Your task to perform on an android device: Open the phone app and click the voicemail tab. Image 0: 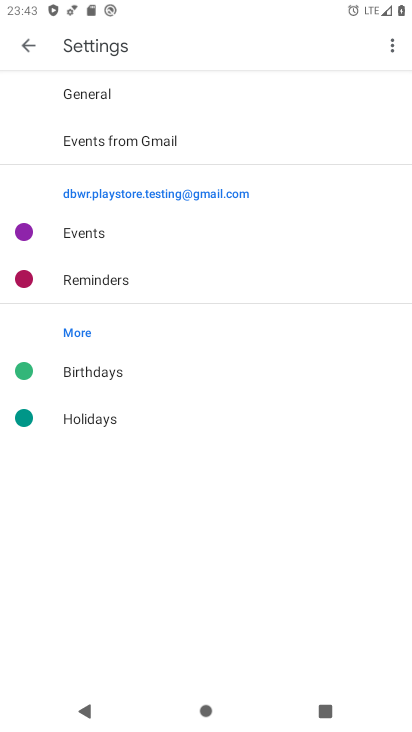
Step 0: press home button
Your task to perform on an android device: Open the phone app and click the voicemail tab. Image 1: 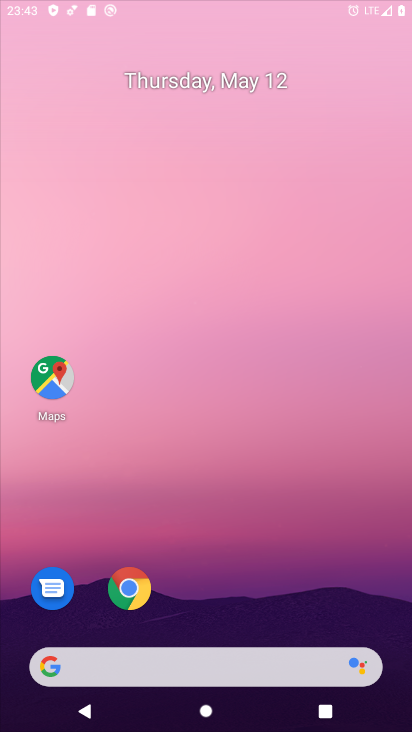
Step 1: drag from (196, 588) to (172, 0)
Your task to perform on an android device: Open the phone app and click the voicemail tab. Image 2: 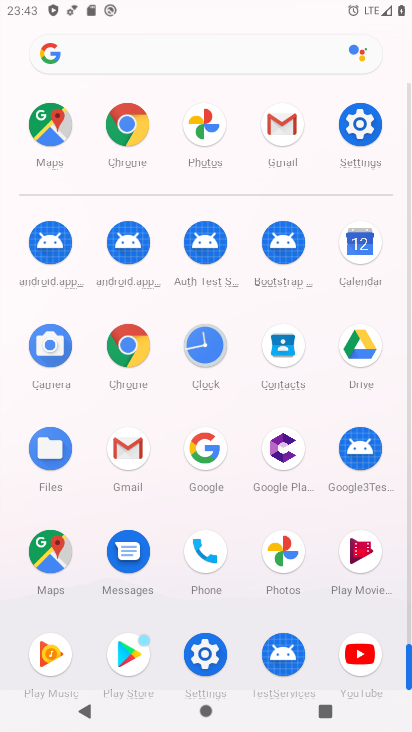
Step 2: drag from (223, 601) to (209, 120)
Your task to perform on an android device: Open the phone app and click the voicemail tab. Image 3: 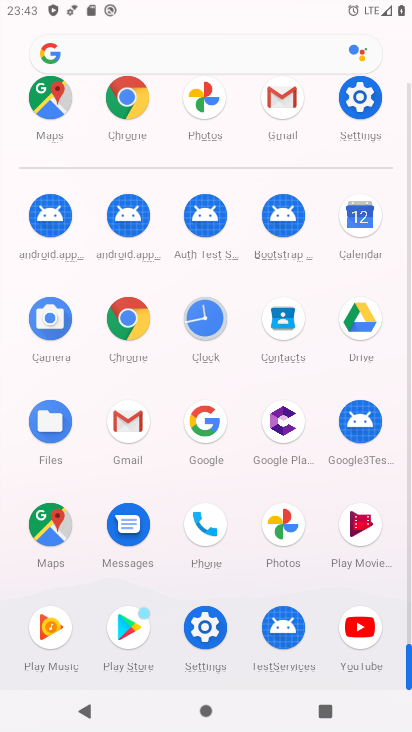
Step 3: click (199, 534)
Your task to perform on an android device: Open the phone app and click the voicemail tab. Image 4: 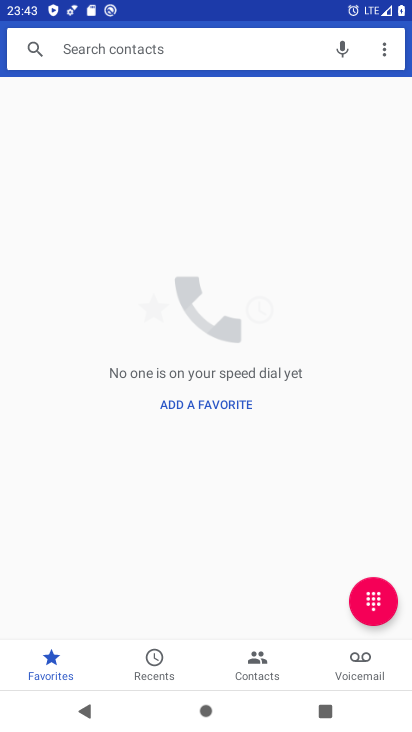
Step 4: click (364, 646)
Your task to perform on an android device: Open the phone app and click the voicemail tab. Image 5: 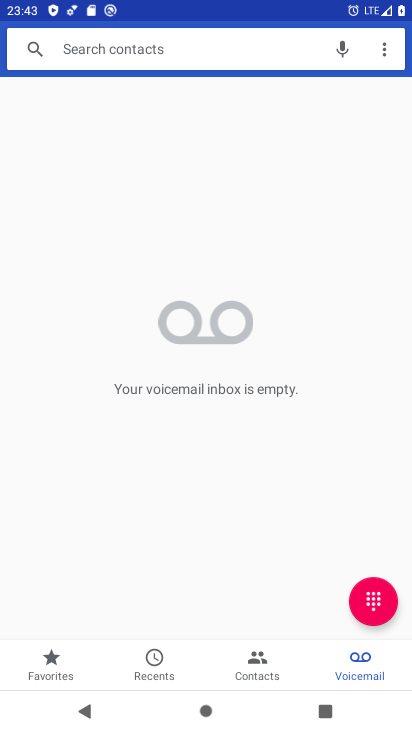
Step 5: drag from (252, 573) to (204, 261)
Your task to perform on an android device: Open the phone app and click the voicemail tab. Image 6: 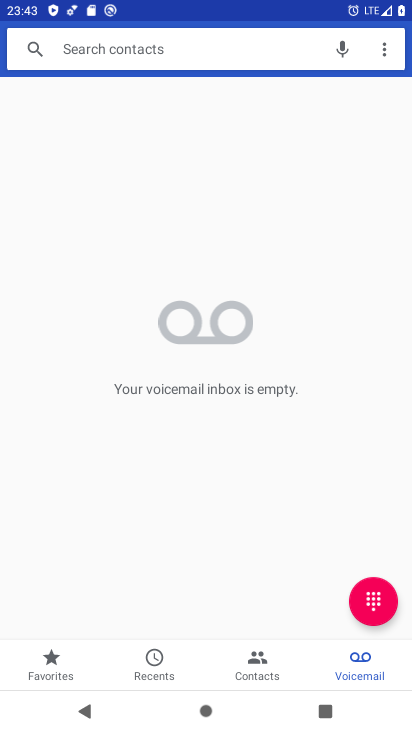
Step 6: drag from (233, 477) to (242, 259)
Your task to perform on an android device: Open the phone app and click the voicemail tab. Image 7: 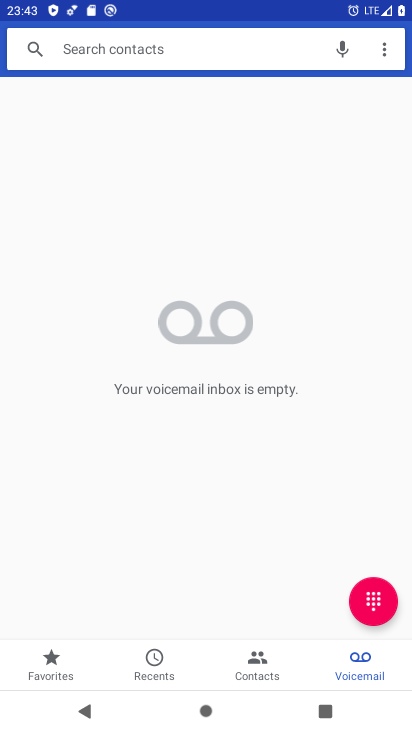
Step 7: click (352, 686)
Your task to perform on an android device: Open the phone app and click the voicemail tab. Image 8: 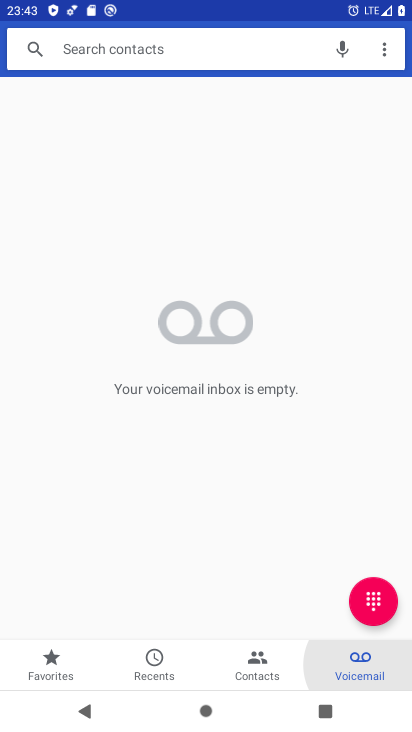
Step 8: click (352, 668)
Your task to perform on an android device: Open the phone app and click the voicemail tab. Image 9: 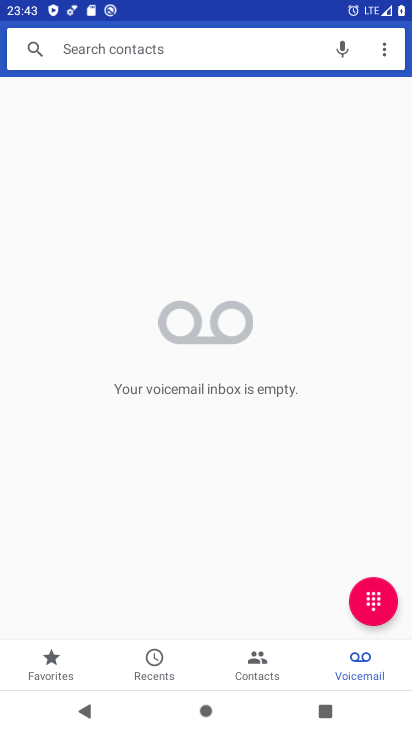
Step 9: drag from (322, 562) to (285, 346)
Your task to perform on an android device: Open the phone app and click the voicemail tab. Image 10: 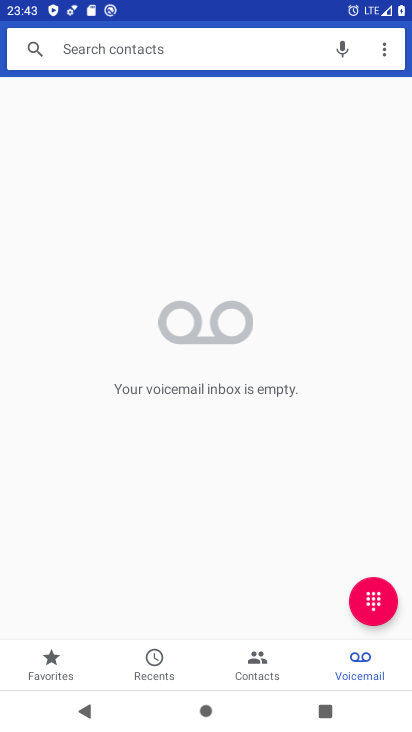
Step 10: click (206, 293)
Your task to perform on an android device: Open the phone app and click the voicemail tab. Image 11: 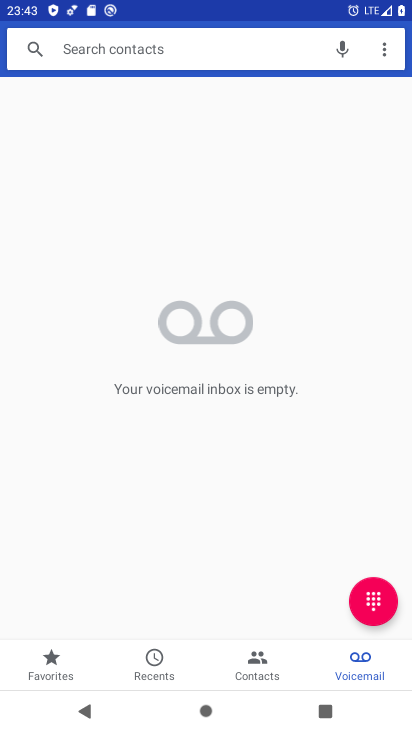
Step 11: click (269, 421)
Your task to perform on an android device: Open the phone app and click the voicemail tab. Image 12: 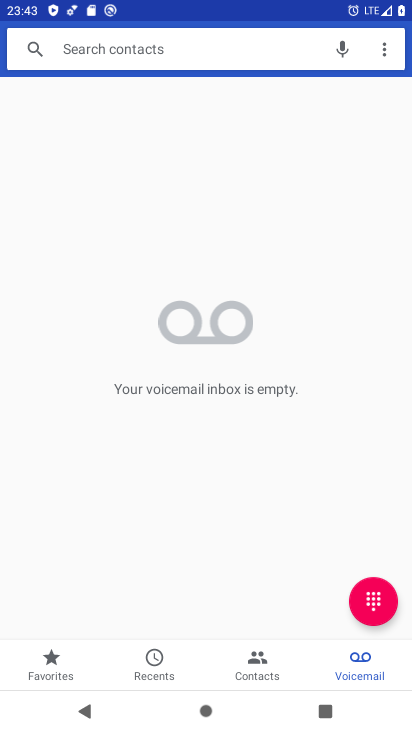
Step 12: task complete